Your task to perform on an android device: Search for pizza restaurants on Maps Image 0: 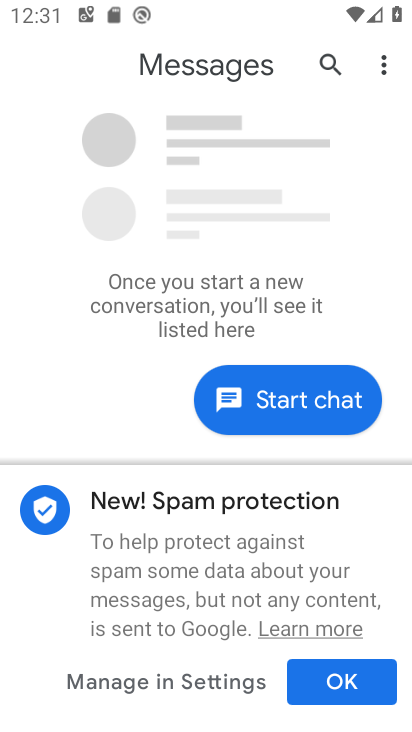
Step 0: press home button
Your task to perform on an android device: Search for pizza restaurants on Maps Image 1: 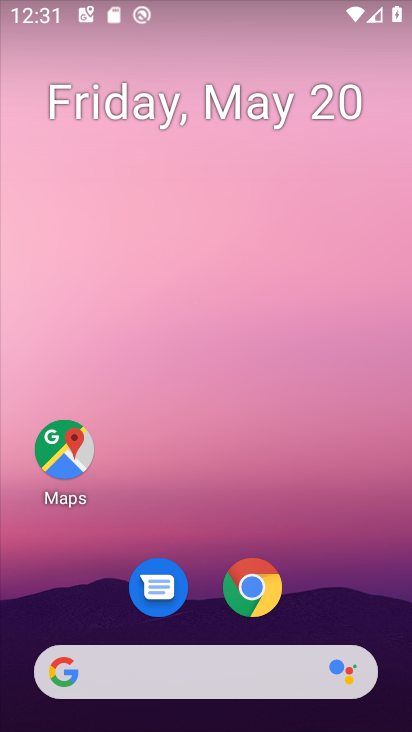
Step 1: drag from (356, 583) to (360, 175)
Your task to perform on an android device: Search for pizza restaurants on Maps Image 2: 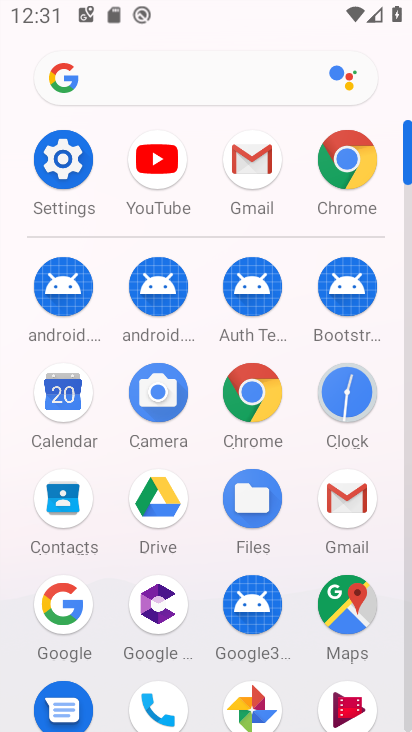
Step 2: click (359, 618)
Your task to perform on an android device: Search for pizza restaurants on Maps Image 3: 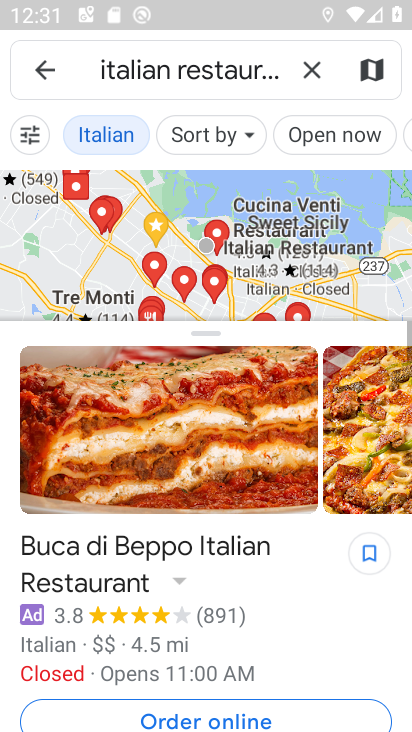
Step 3: click (302, 59)
Your task to perform on an android device: Search for pizza restaurants on Maps Image 4: 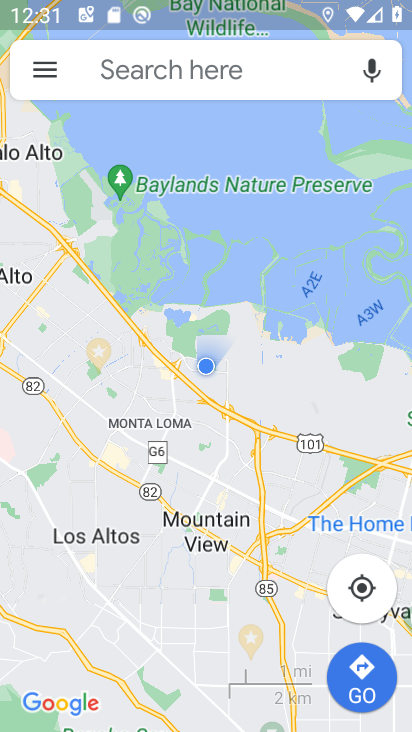
Step 4: click (247, 80)
Your task to perform on an android device: Search for pizza restaurants on Maps Image 5: 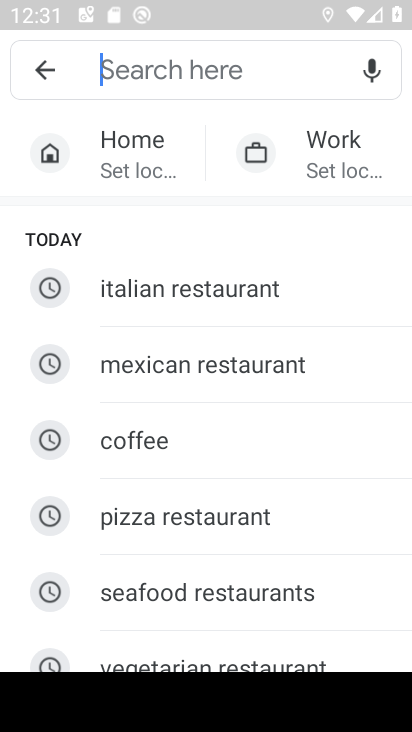
Step 5: type "pizzaa restaurants"
Your task to perform on an android device: Search for pizza restaurants on Maps Image 6: 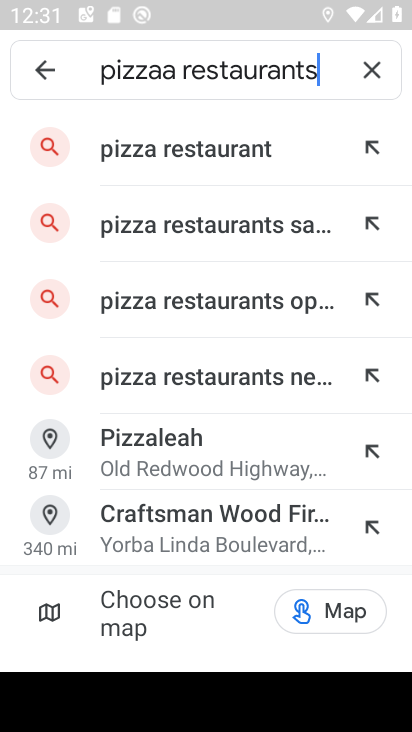
Step 6: click (206, 154)
Your task to perform on an android device: Search for pizza restaurants on Maps Image 7: 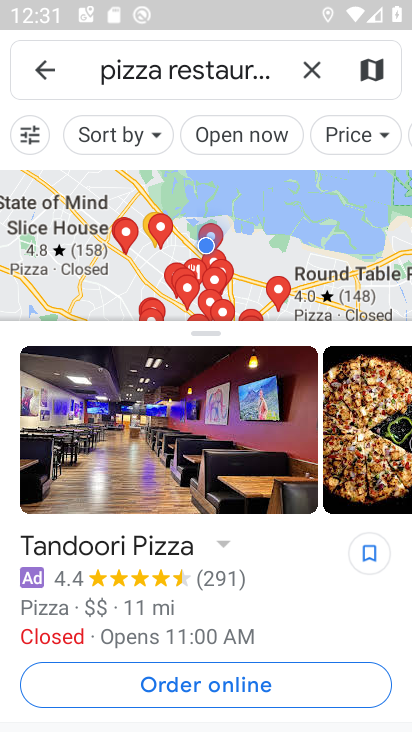
Step 7: task complete